Your task to perform on an android device: toggle wifi Image 0: 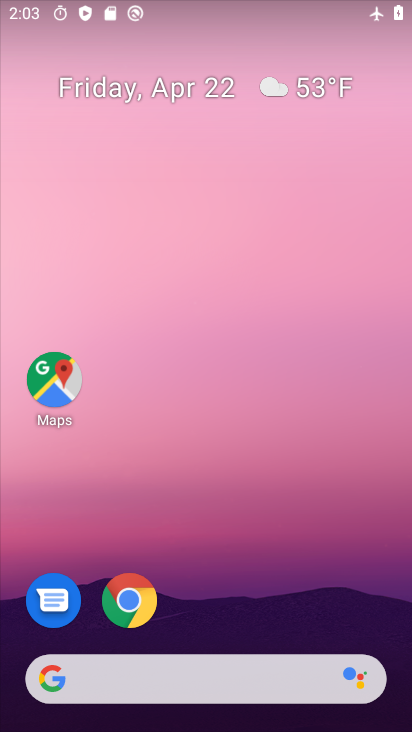
Step 0: drag from (219, 722) to (197, 94)
Your task to perform on an android device: toggle wifi Image 1: 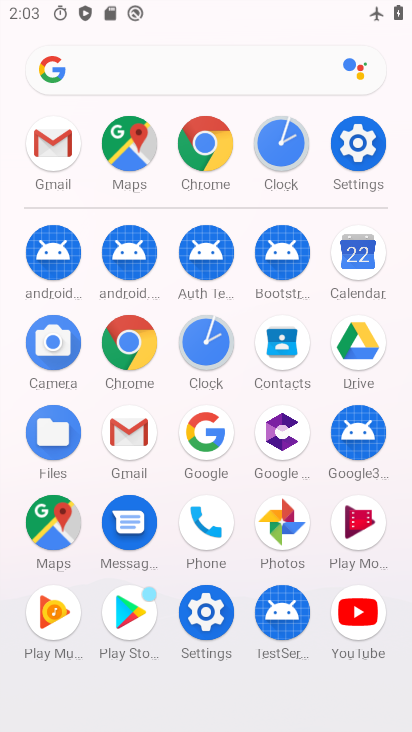
Step 1: click (353, 143)
Your task to perform on an android device: toggle wifi Image 2: 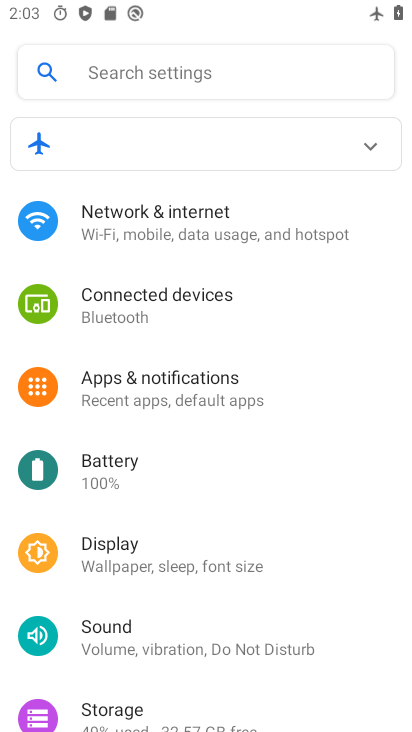
Step 2: click (132, 219)
Your task to perform on an android device: toggle wifi Image 3: 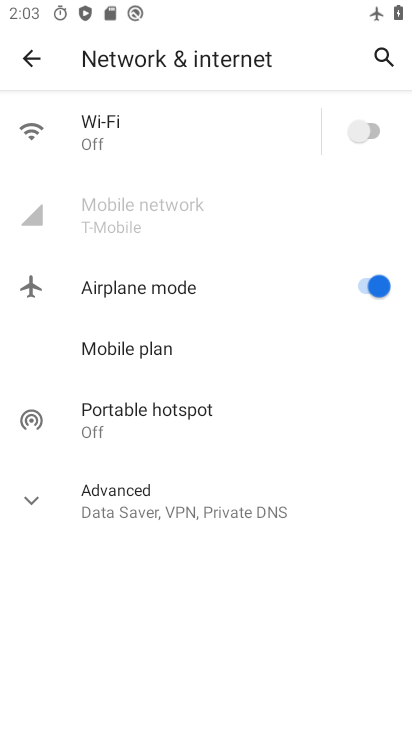
Step 3: click (372, 127)
Your task to perform on an android device: toggle wifi Image 4: 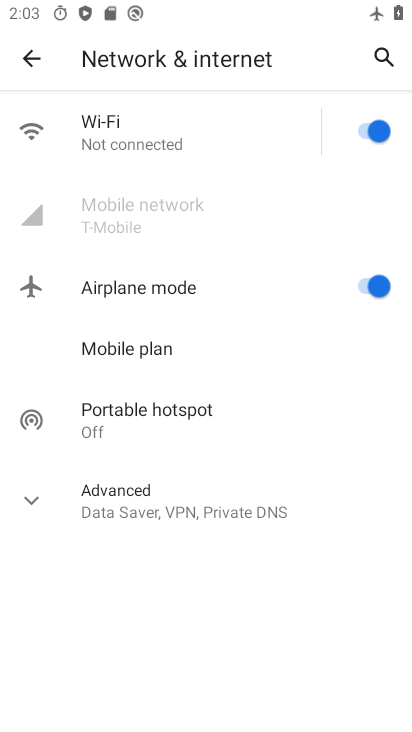
Step 4: task complete